Your task to perform on an android device: Go to CNN.com Image 0: 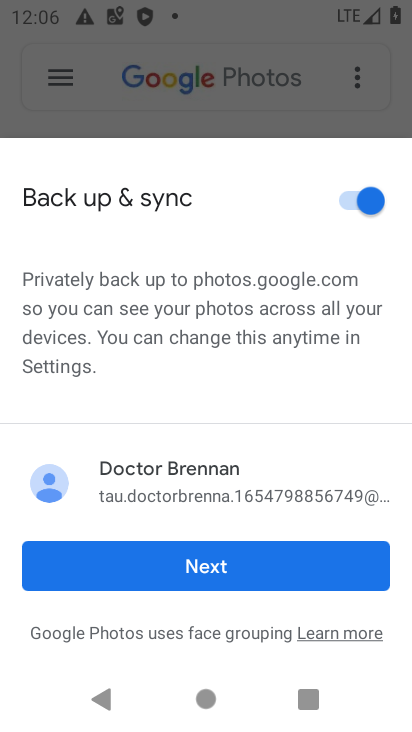
Step 0: press home button
Your task to perform on an android device: Go to CNN.com Image 1: 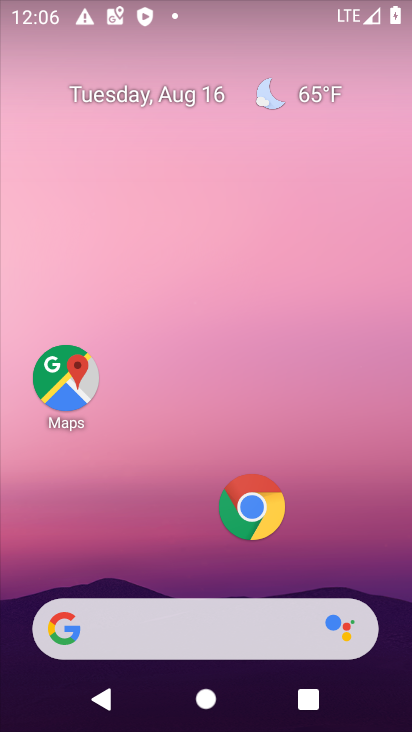
Step 1: click (249, 507)
Your task to perform on an android device: Go to CNN.com Image 2: 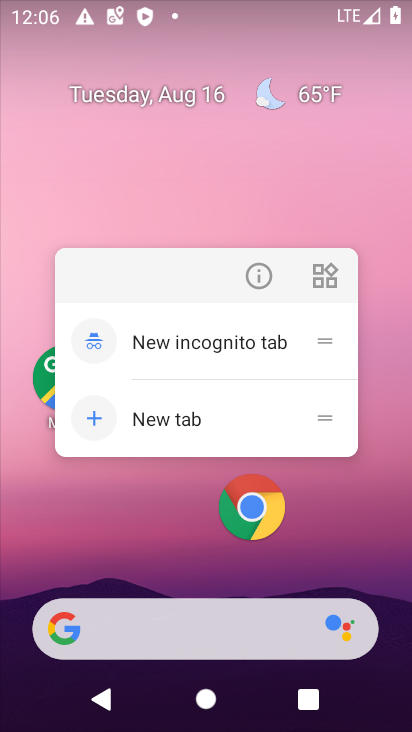
Step 2: click (249, 507)
Your task to perform on an android device: Go to CNN.com Image 3: 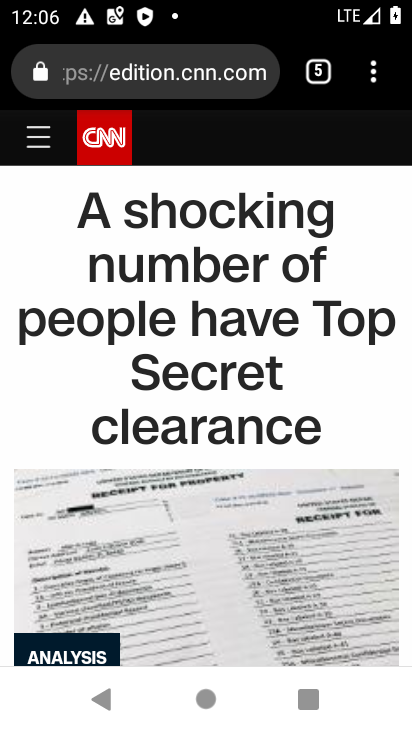
Step 3: click (372, 75)
Your task to perform on an android device: Go to CNN.com Image 4: 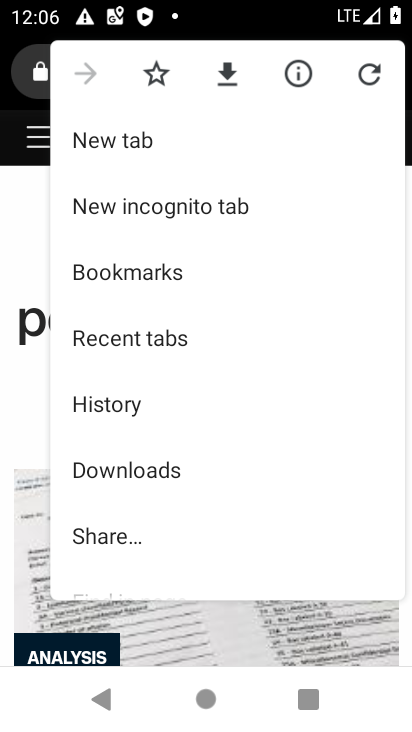
Step 4: click (26, 237)
Your task to perform on an android device: Go to CNN.com Image 5: 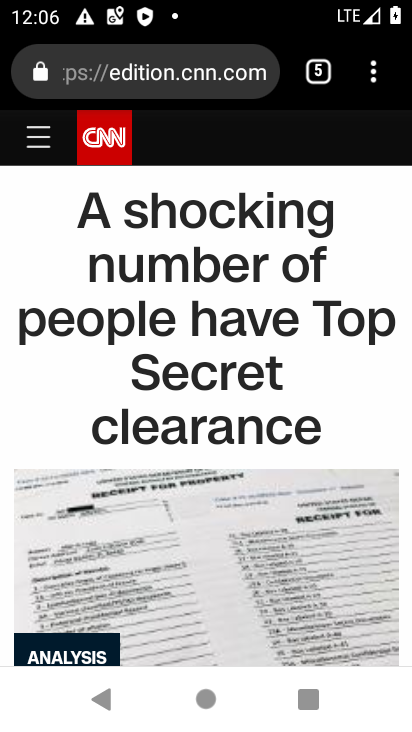
Step 5: task complete